Your task to perform on an android device: move a message to another label in the gmail app Image 0: 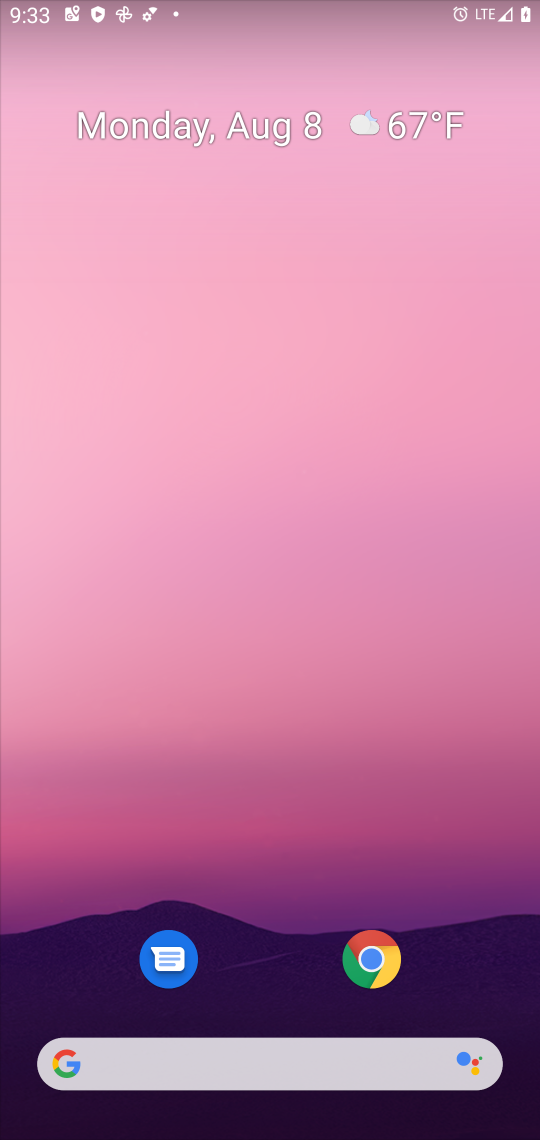
Step 0: drag from (516, 945) to (188, 73)
Your task to perform on an android device: move a message to another label in the gmail app Image 1: 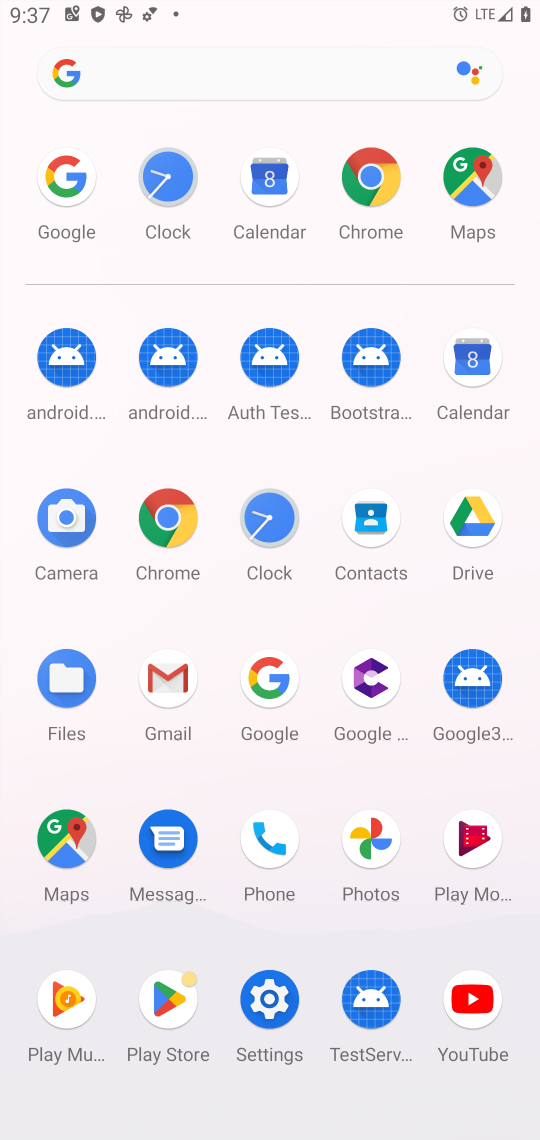
Step 1: click (156, 686)
Your task to perform on an android device: move a message to another label in the gmail app Image 2: 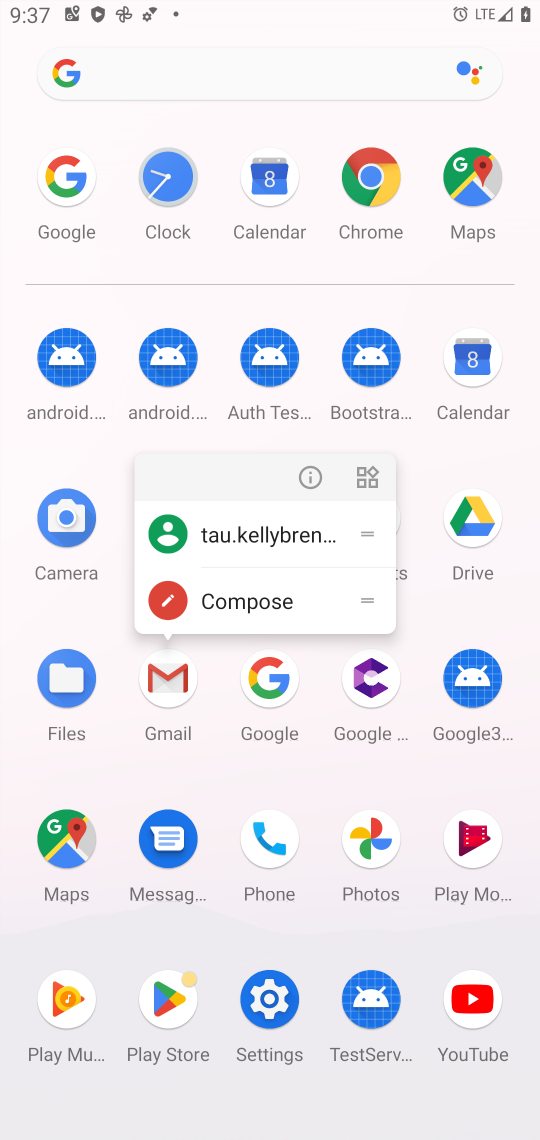
Step 2: task complete